Your task to perform on an android device: Go to eBay Image 0: 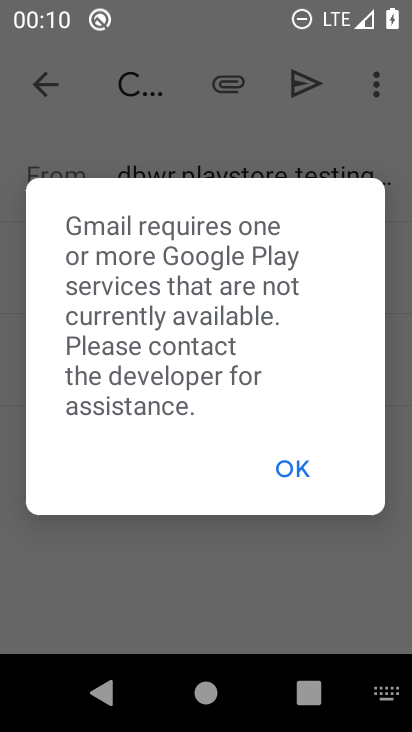
Step 0: press home button
Your task to perform on an android device: Go to eBay Image 1: 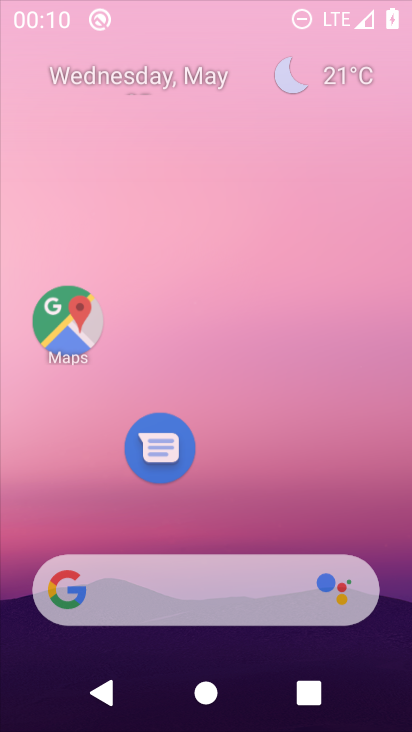
Step 1: drag from (201, 533) to (303, 12)
Your task to perform on an android device: Go to eBay Image 2: 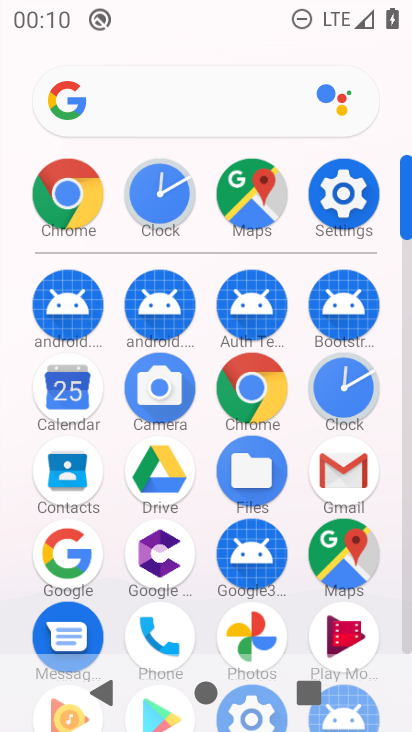
Step 2: click (140, 110)
Your task to perform on an android device: Go to eBay Image 3: 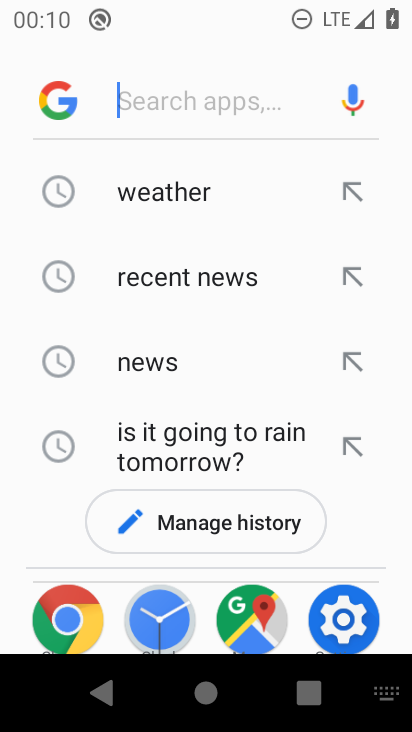
Step 3: type "ebay"
Your task to perform on an android device: Go to eBay Image 4: 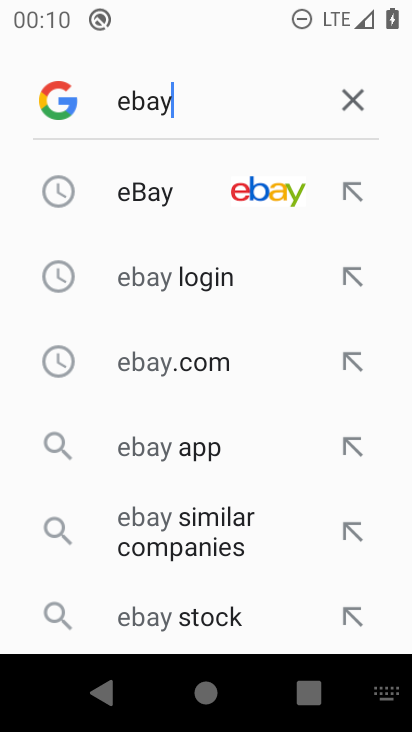
Step 4: click (160, 208)
Your task to perform on an android device: Go to eBay Image 5: 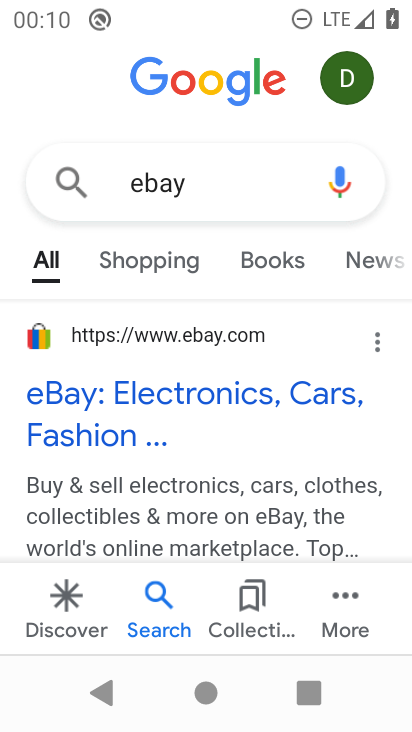
Step 5: drag from (202, 480) to (272, 242)
Your task to perform on an android device: Go to eBay Image 6: 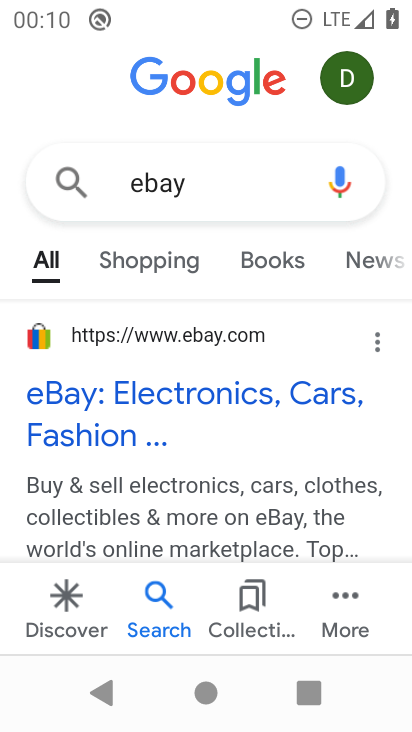
Step 6: click (130, 404)
Your task to perform on an android device: Go to eBay Image 7: 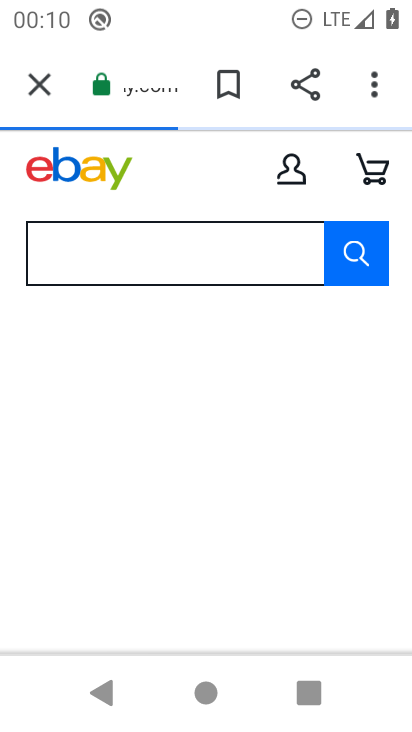
Step 7: task complete